Your task to perform on an android device: Is it going to rain today? Image 0: 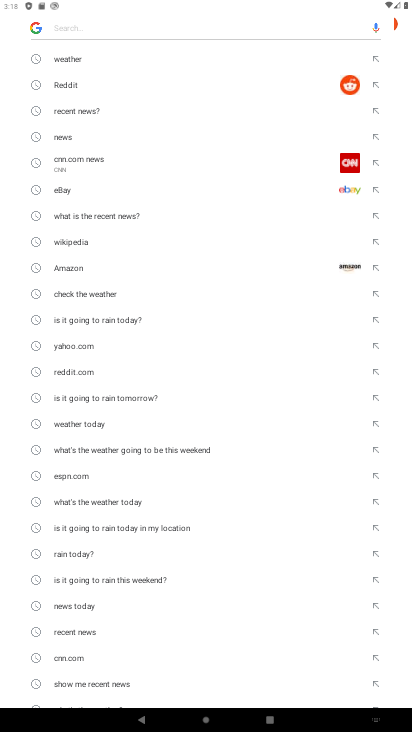
Step 0: press home button
Your task to perform on an android device: Is it going to rain today? Image 1: 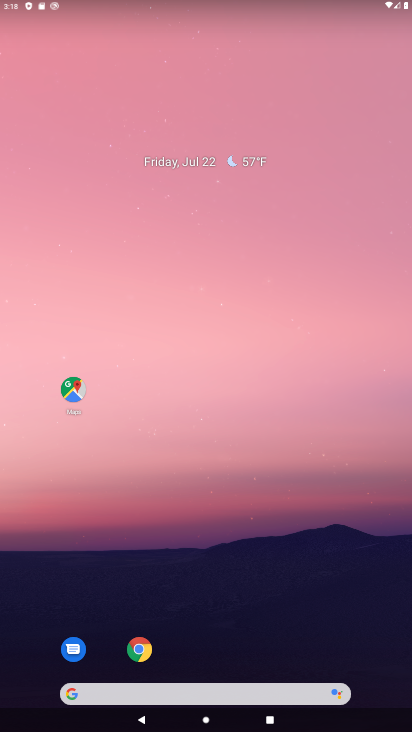
Step 1: click (152, 696)
Your task to perform on an android device: Is it going to rain today? Image 2: 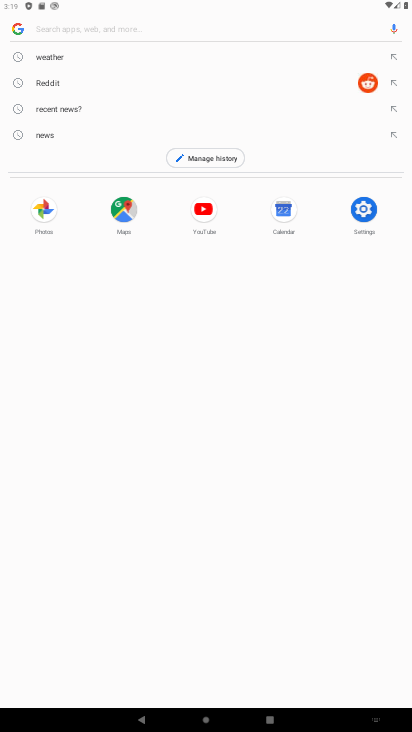
Step 2: type "Is it going to rain today?"
Your task to perform on an android device: Is it going to rain today? Image 3: 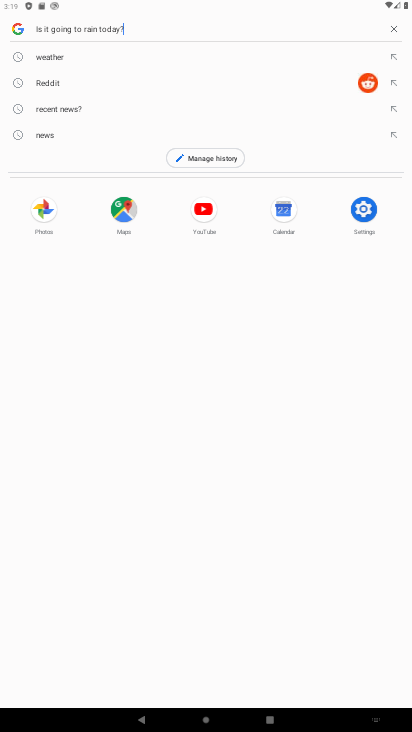
Step 3: type ""
Your task to perform on an android device: Is it going to rain today? Image 4: 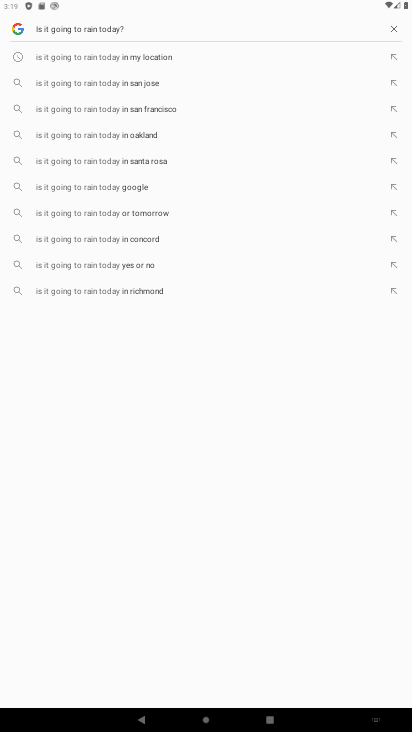
Step 4: task complete